Your task to perform on an android device: find snoozed emails in the gmail app Image 0: 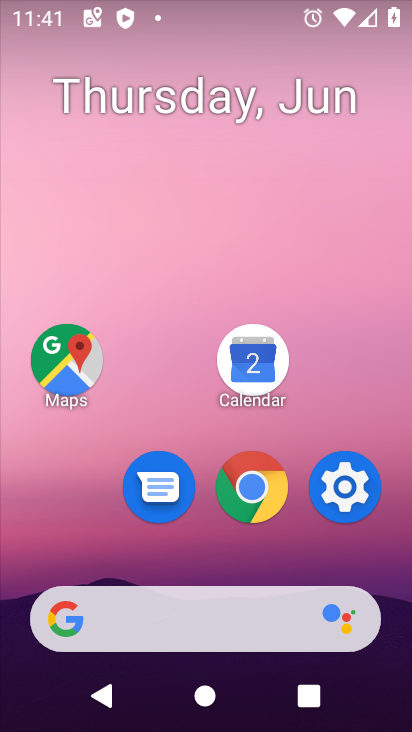
Step 0: press home button
Your task to perform on an android device: find snoozed emails in the gmail app Image 1: 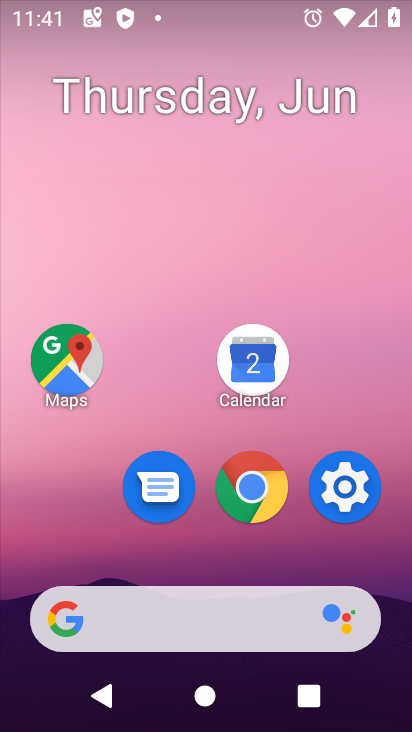
Step 1: click (337, 89)
Your task to perform on an android device: find snoozed emails in the gmail app Image 2: 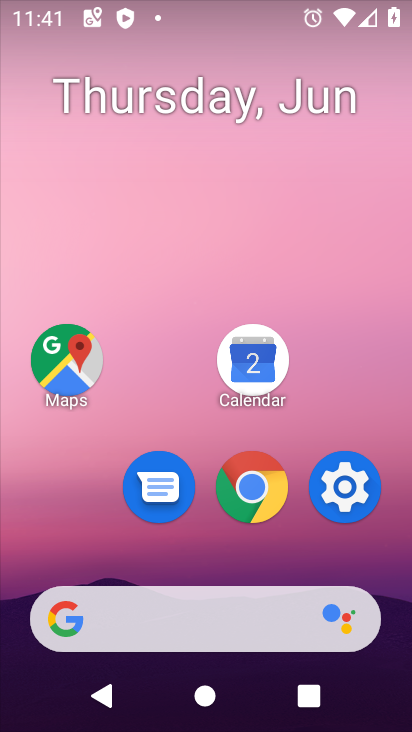
Step 2: drag from (260, 660) to (225, 0)
Your task to perform on an android device: find snoozed emails in the gmail app Image 3: 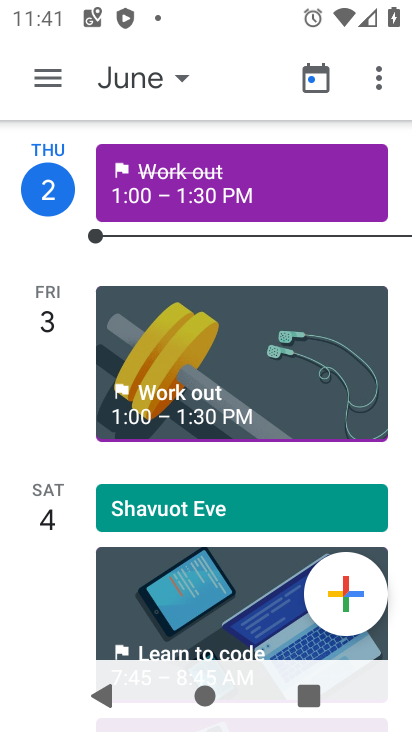
Step 3: press home button
Your task to perform on an android device: find snoozed emails in the gmail app Image 4: 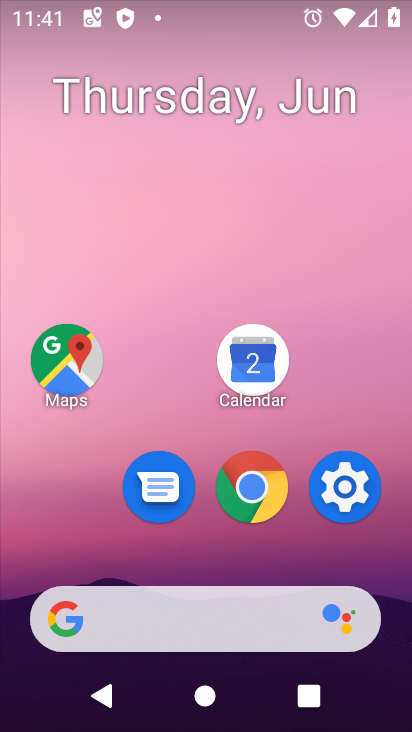
Step 4: drag from (253, 664) to (135, 3)
Your task to perform on an android device: find snoozed emails in the gmail app Image 5: 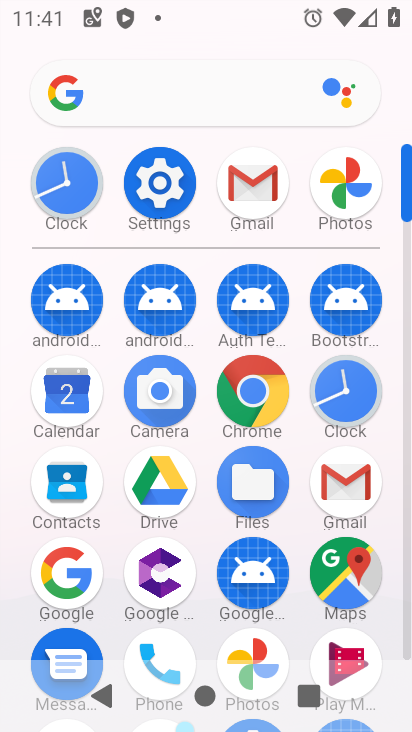
Step 5: click (358, 495)
Your task to perform on an android device: find snoozed emails in the gmail app Image 6: 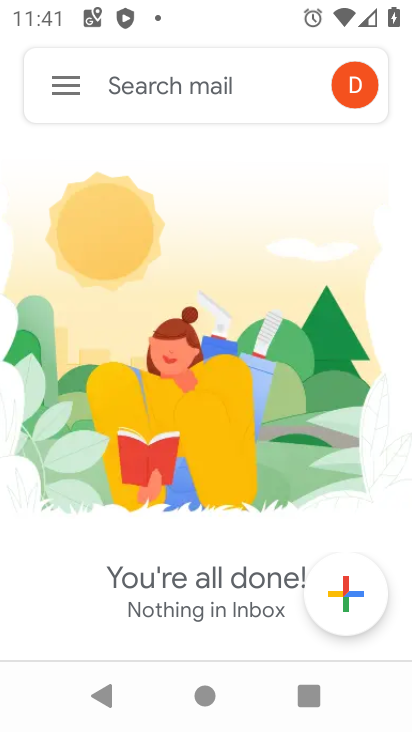
Step 6: click (62, 79)
Your task to perform on an android device: find snoozed emails in the gmail app Image 7: 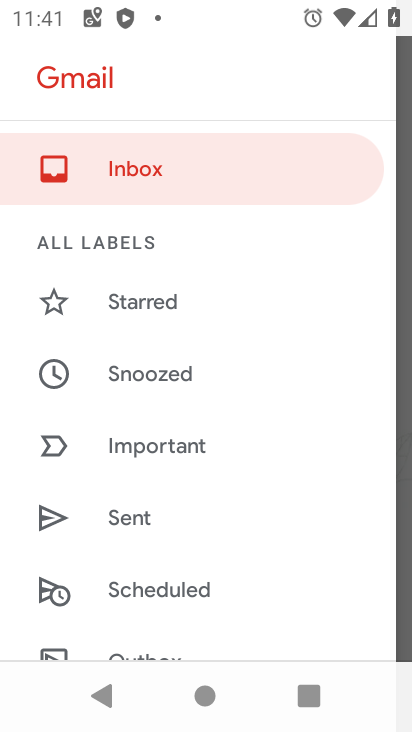
Step 7: drag from (194, 598) to (267, 344)
Your task to perform on an android device: find snoozed emails in the gmail app Image 8: 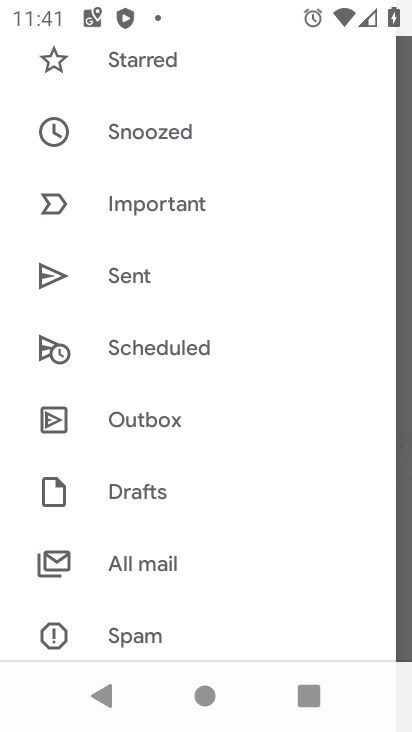
Step 8: click (154, 610)
Your task to perform on an android device: find snoozed emails in the gmail app Image 9: 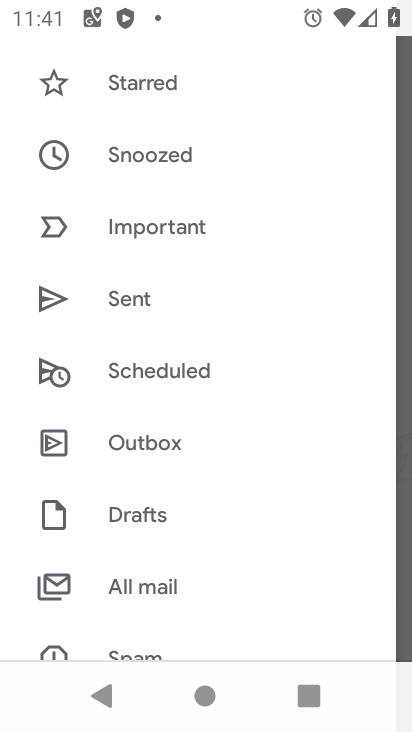
Step 9: click (121, 162)
Your task to perform on an android device: find snoozed emails in the gmail app Image 10: 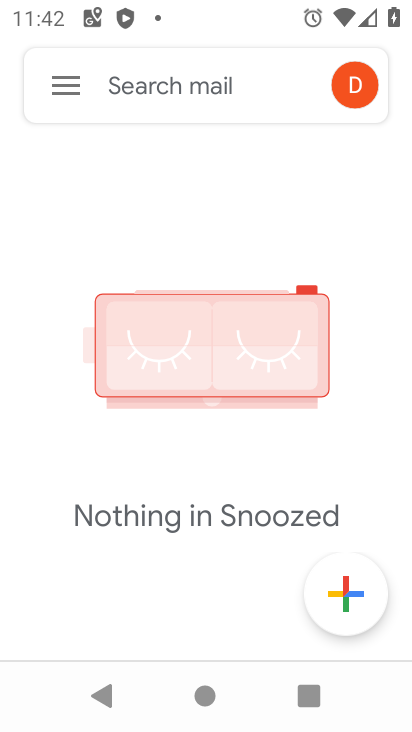
Step 10: task complete